Your task to perform on an android device: turn vacation reply on in the gmail app Image 0: 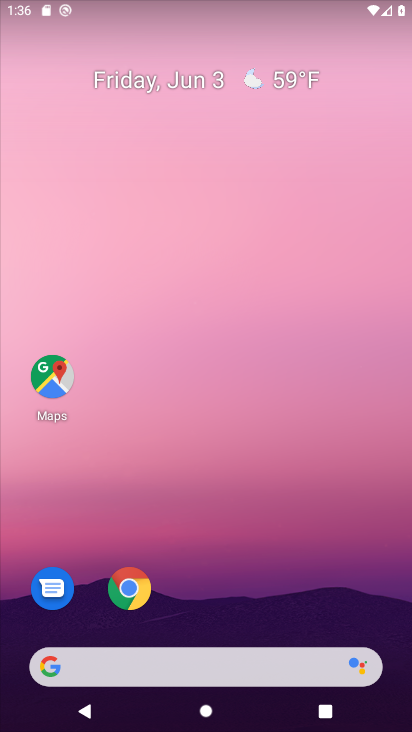
Step 0: drag from (150, 730) to (128, 44)
Your task to perform on an android device: turn vacation reply on in the gmail app Image 1: 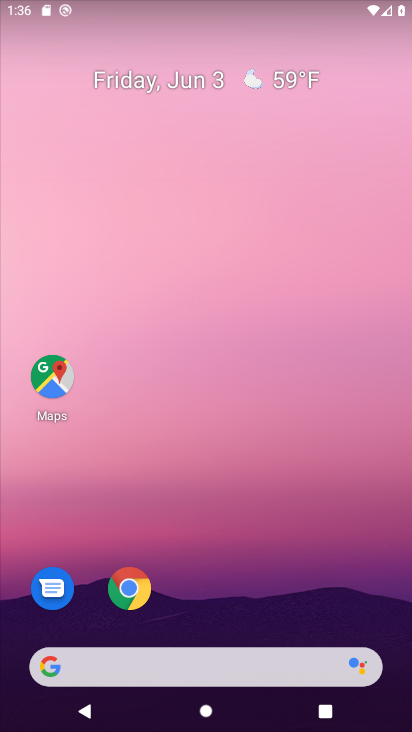
Step 1: drag from (149, 729) to (106, 17)
Your task to perform on an android device: turn vacation reply on in the gmail app Image 2: 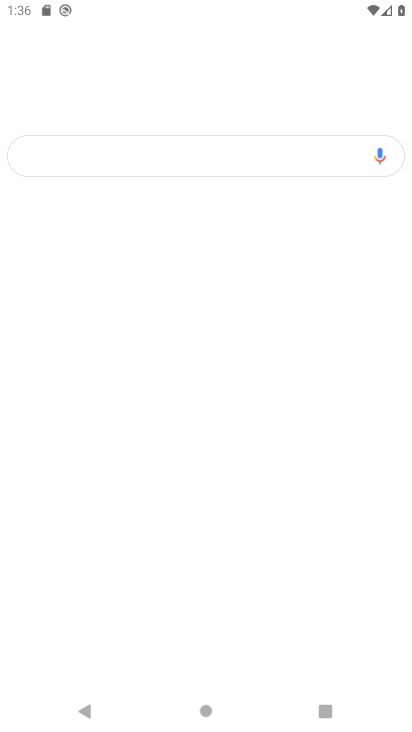
Step 2: press home button
Your task to perform on an android device: turn vacation reply on in the gmail app Image 3: 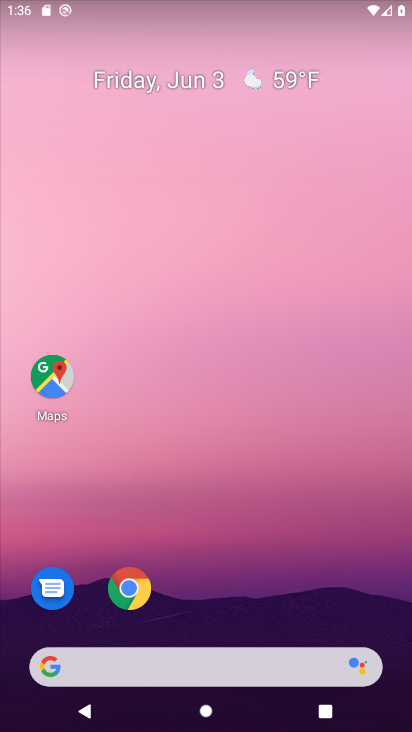
Step 3: drag from (145, 717) to (179, 65)
Your task to perform on an android device: turn vacation reply on in the gmail app Image 4: 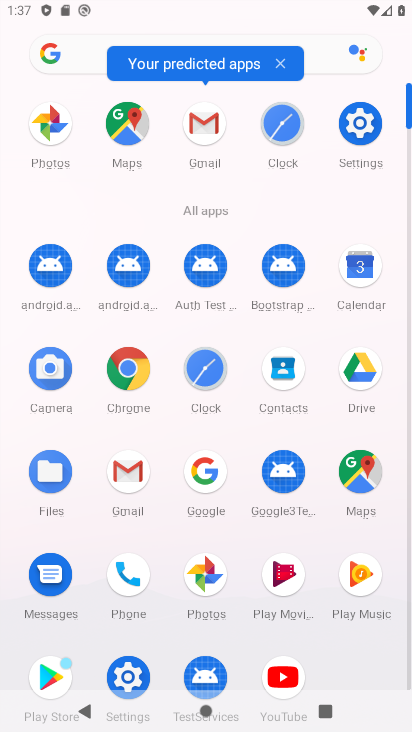
Step 4: click (128, 486)
Your task to perform on an android device: turn vacation reply on in the gmail app Image 5: 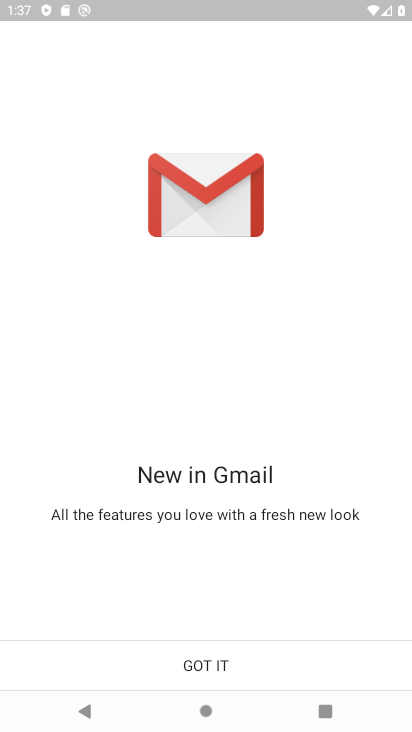
Step 5: click (222, 664)
Your task to perform on an android device: turn vacation reply on in the gmail app Image 6: 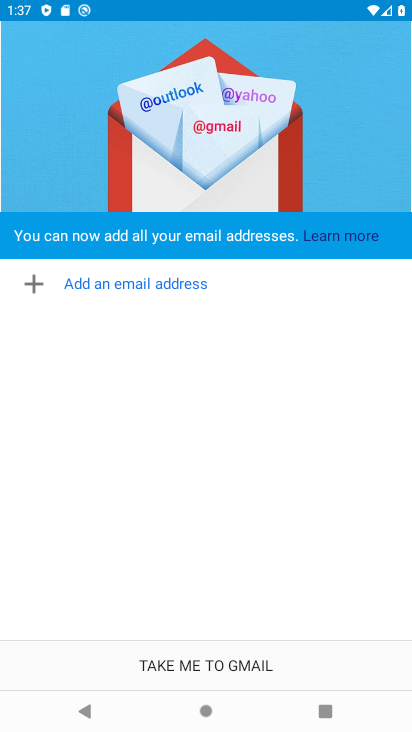
Step 6: click (222, 667)
Your task to perform on an android device: turn vacation reply on in the gmail app Image 7: 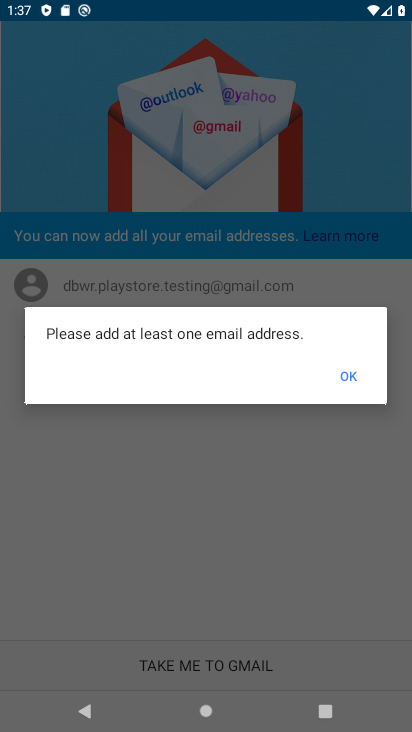
Step 7: click (348, 381)
Your task to perform on an android device: turn vacation reply on in the gmail app Image 8: 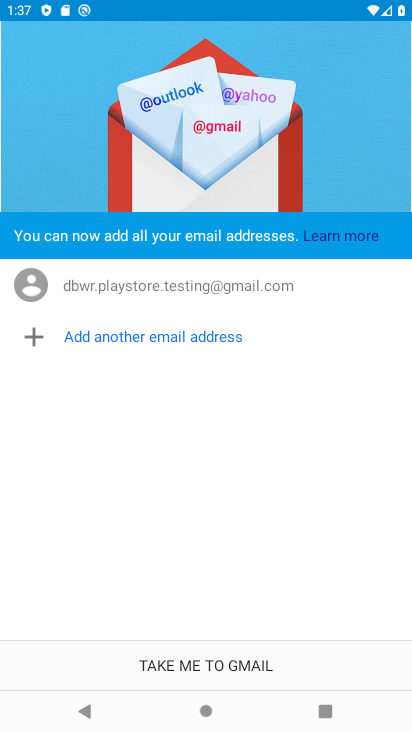
Step 8: click (192, 668)
Your task to perform on an android device: turn vacation reply on in the gmail app Image 9: 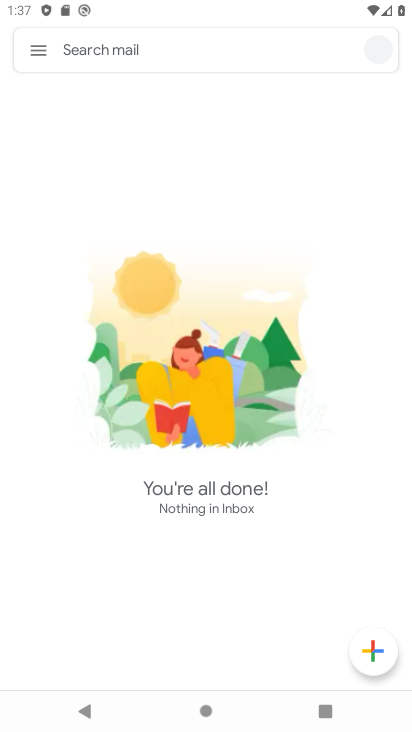
Step 9: click (36, 51)
Your task to perform on an android device: turn vacation reply on in the gmail app Image 10: 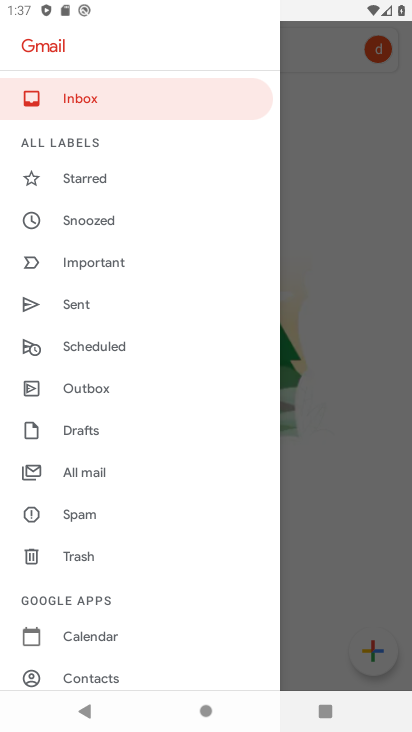
Step 10: drag from (172, 655) to (122, 173)
Your task to perform on an android device: turn vacation reply on in the gmail app Image 11: 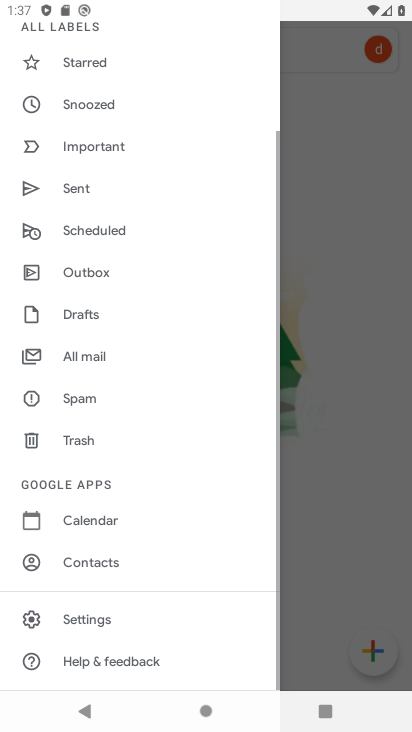
Step 11: click (85, 620)
Your task to perform on an android device: turn vacation reply on in the gmail app Image 12: 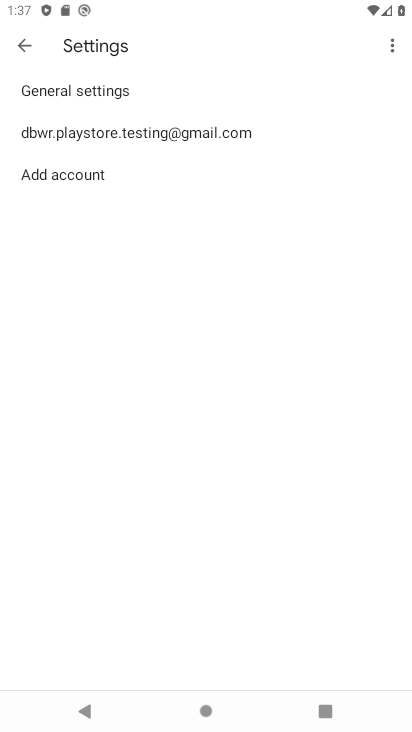
Step 12: click (174, 133)
Your task to perform on an android device: turn vacation reply on in the gmail app Image 13: 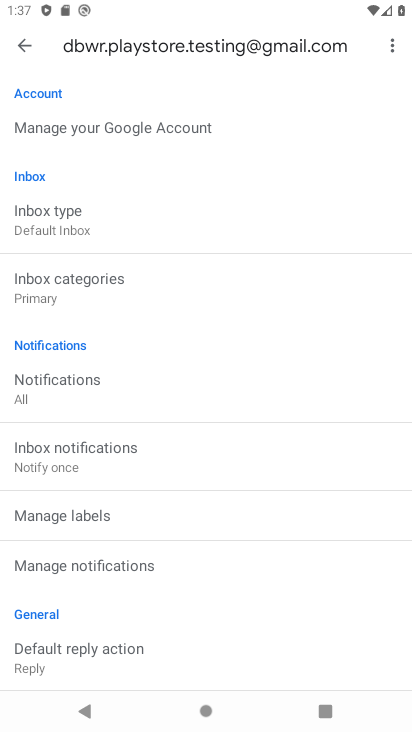
Step 13: drag from (292, 625) to (265, 214)
Your task to perform on an android device: turn vacation reply on in the gmail app Image 14: 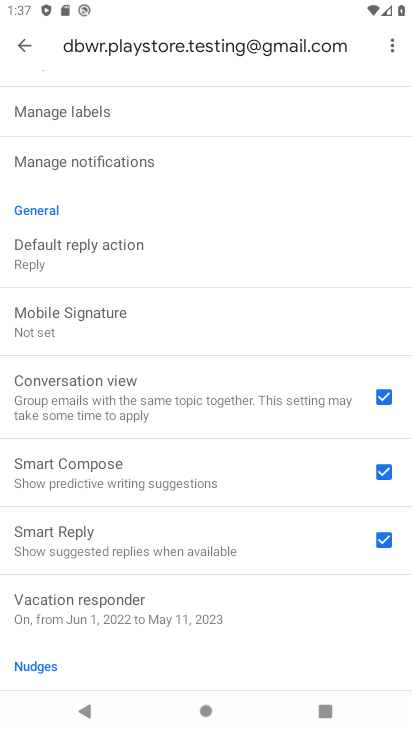
Step 14: click (151, 599)
Your task to perform on an android device: turn vacation reply on in the gmail app Image 15: 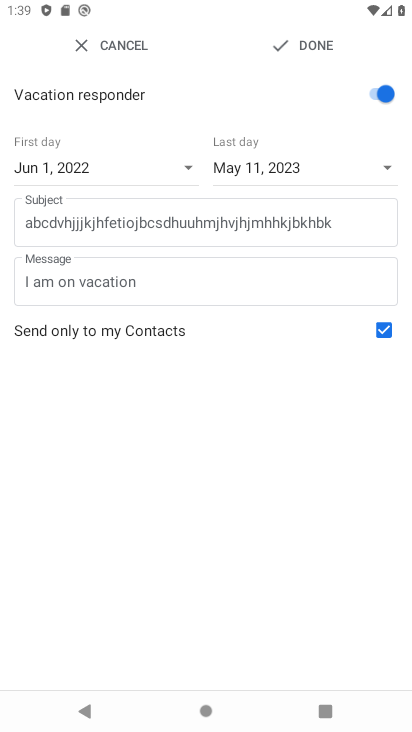
Step 15: task complete